Your task to perform on an android device: Go to ESPN.com Image 0: 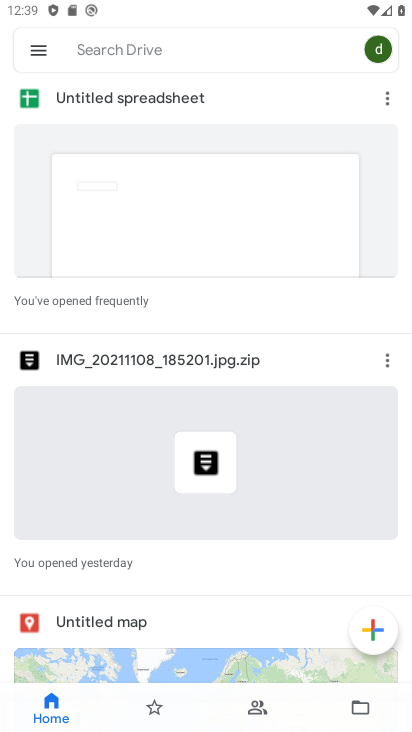
Step 0: press home button
Your task to perform on an android device: Go to ESPN.com Image 1: 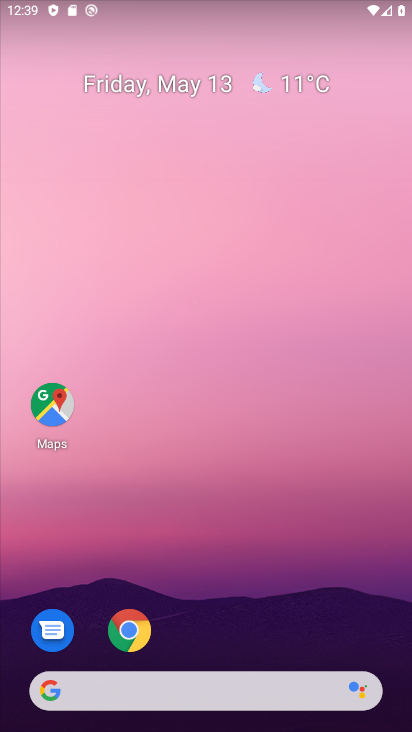
Step 1: drag from (300, 467) to (306, 147)
Your task to perform on an android device: Go to ESPN.com Image 2: 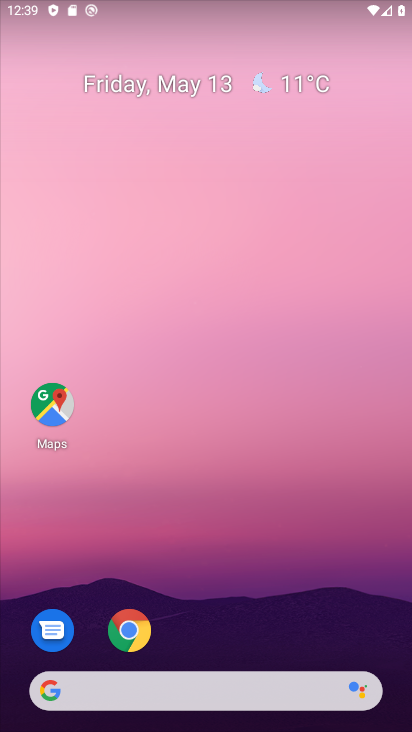
Step 2: drag from (283, 554) to (267, 124)
Your task to perform on an android device: Go to ESPN.com Image 3: 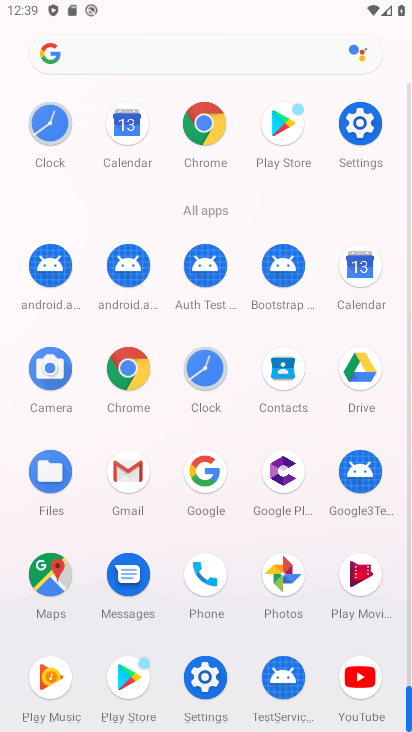
Step 3: click (139, 367)
Your task to perform on an android device: Go to ESPN.com Image 4: 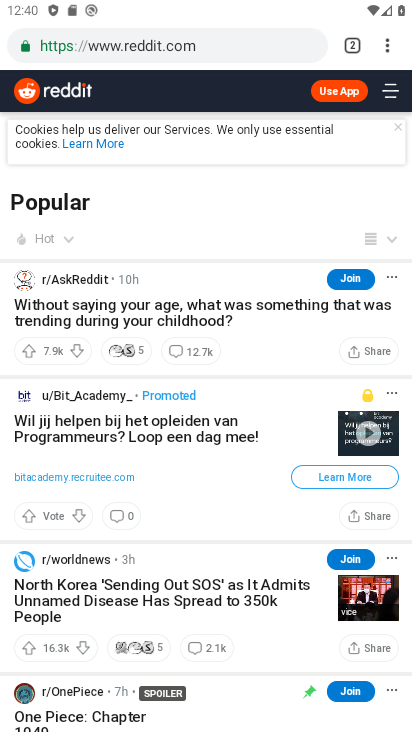
Step 4: drag from (368, 541) to (258, 660)
Your task to perform on an android device: Go to ESPN.com Image 5: 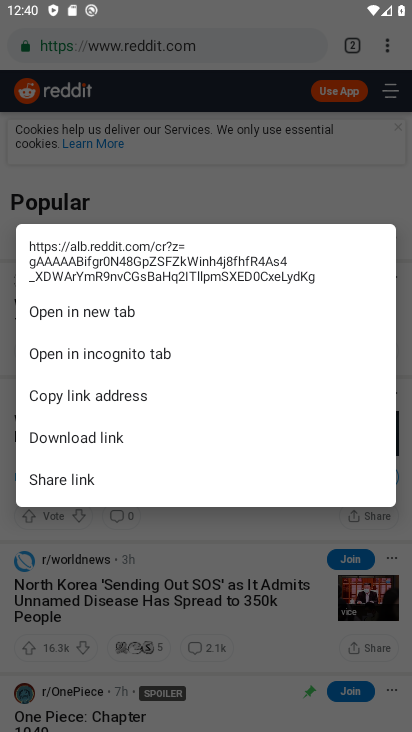
Step 5: click (218, 691)
Your task to perform on an android device: Go to ESPN.com Image 6: 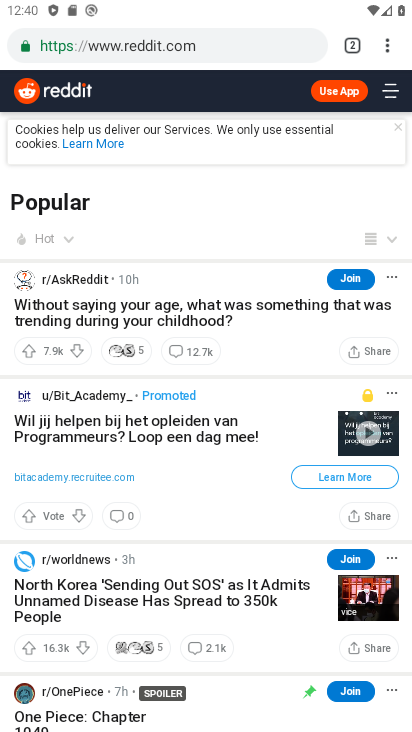
Step 6: click (354, 47)
Your task to perform on an android device: Go to ESPN.com Image 7: 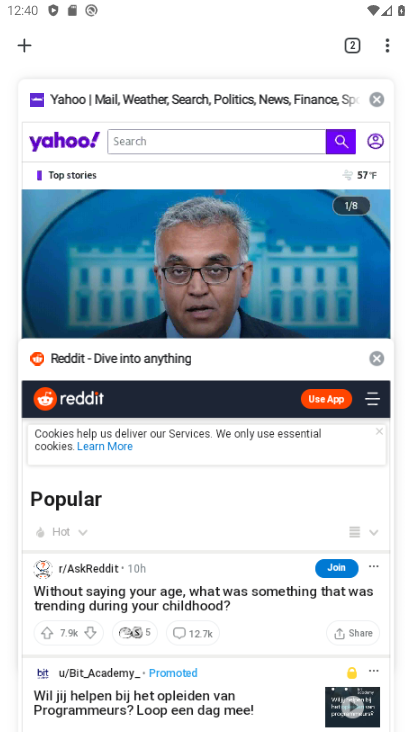
Step 7: click (25, 59)
Your task to perform on an android device: Go to ESPN.com Image 8: 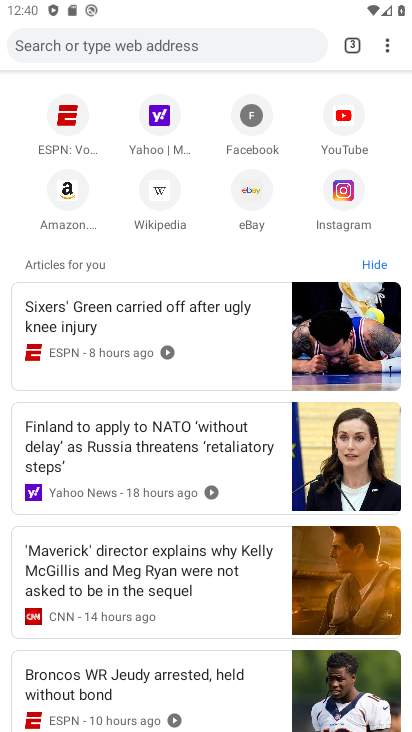
Step 8: click (56, 142)
Your task to perform on an android device: Go to ESPN.com Image 9: 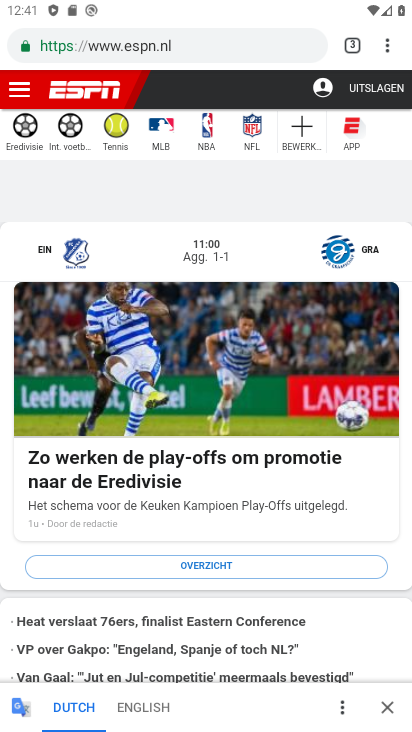
Step 9: task complete